Your task to perform on an android device: turn off smart reply in the gmail app Image 0: 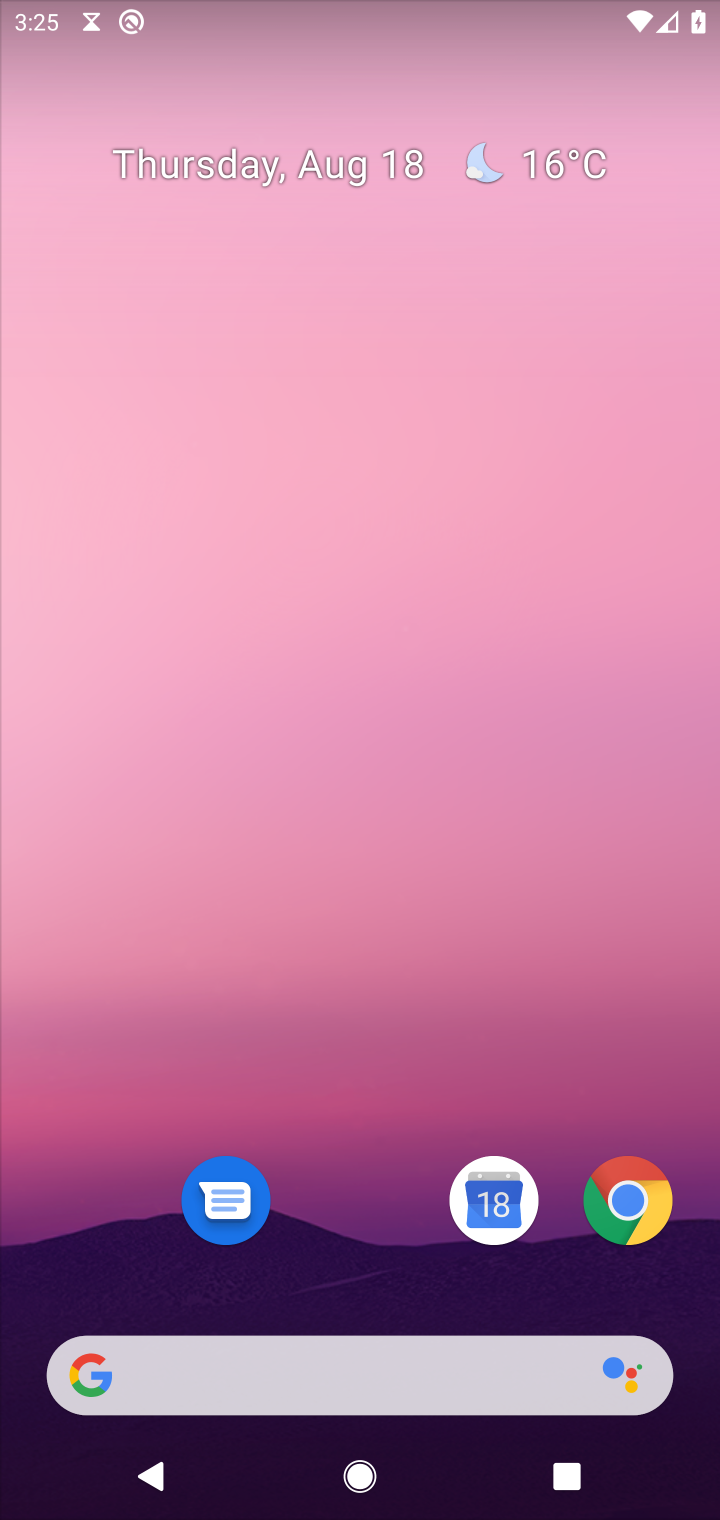
Step 0: drag from (364, 722) to (358, 194)
Your task to perform on an android device: turn off smart reply in the gmail app Image 1: 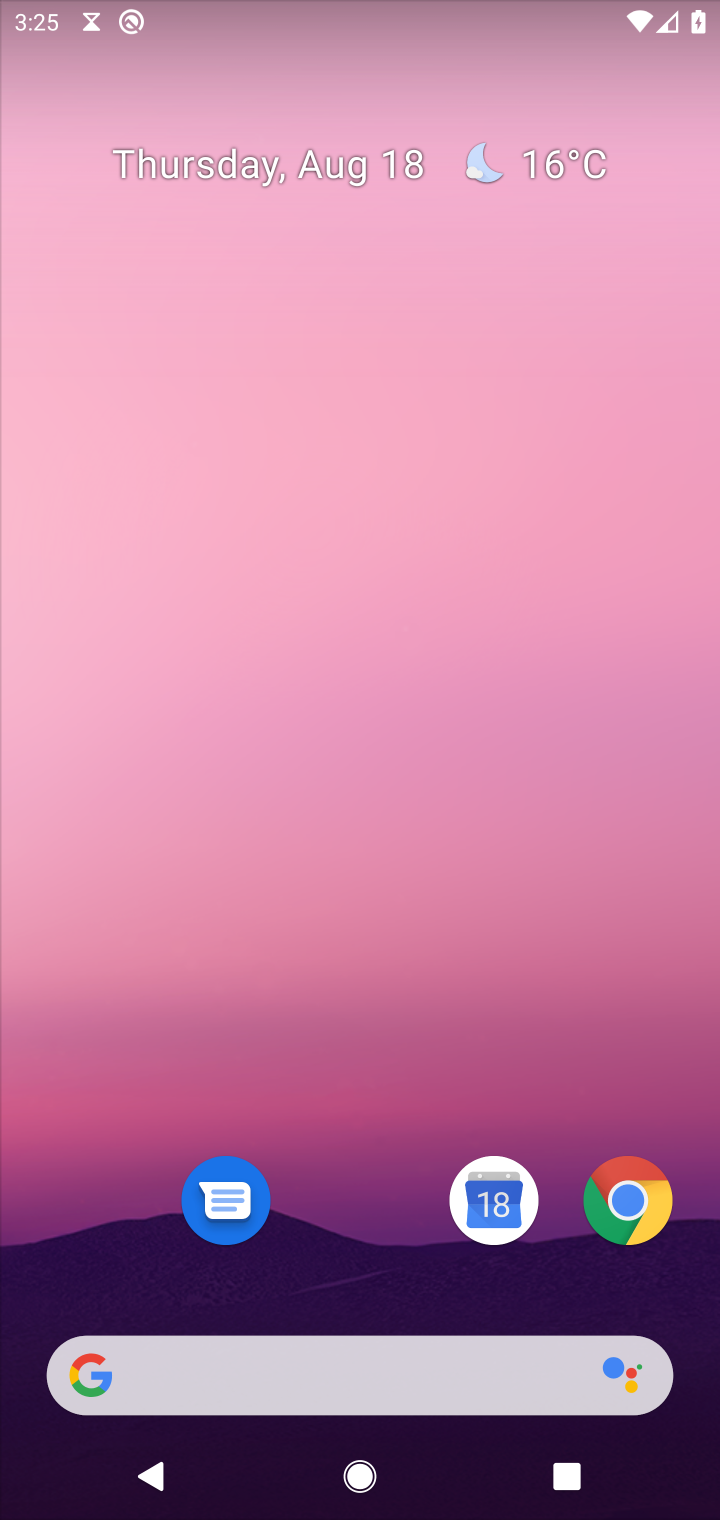
Step 1: drag from (344, 1132) to (425, 209)
Your task to perform on an android device: turn off smart reply in the gmail app Image 2: 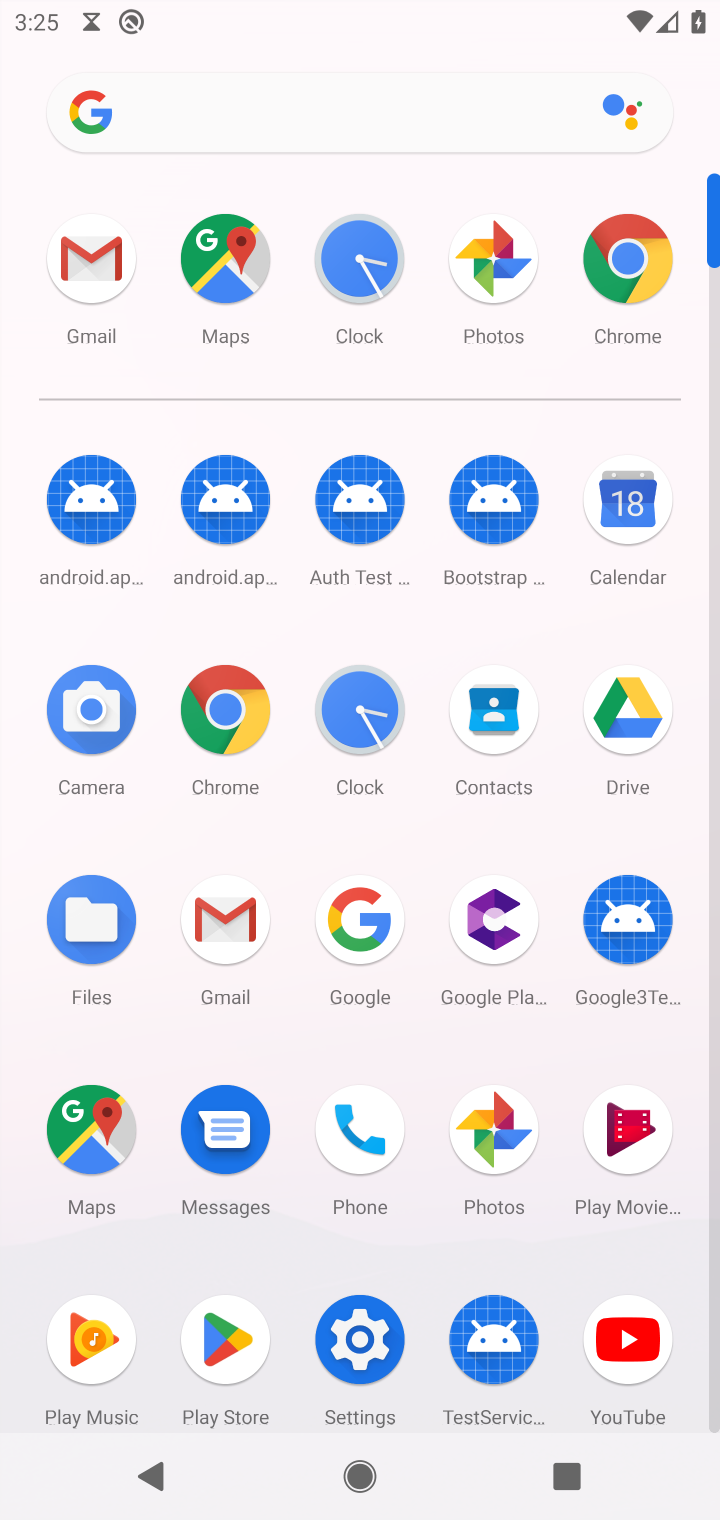
Step 2: click (351, 1339)
Your task to perform on an android device: turn off smart reply in the gmail app Image 3: 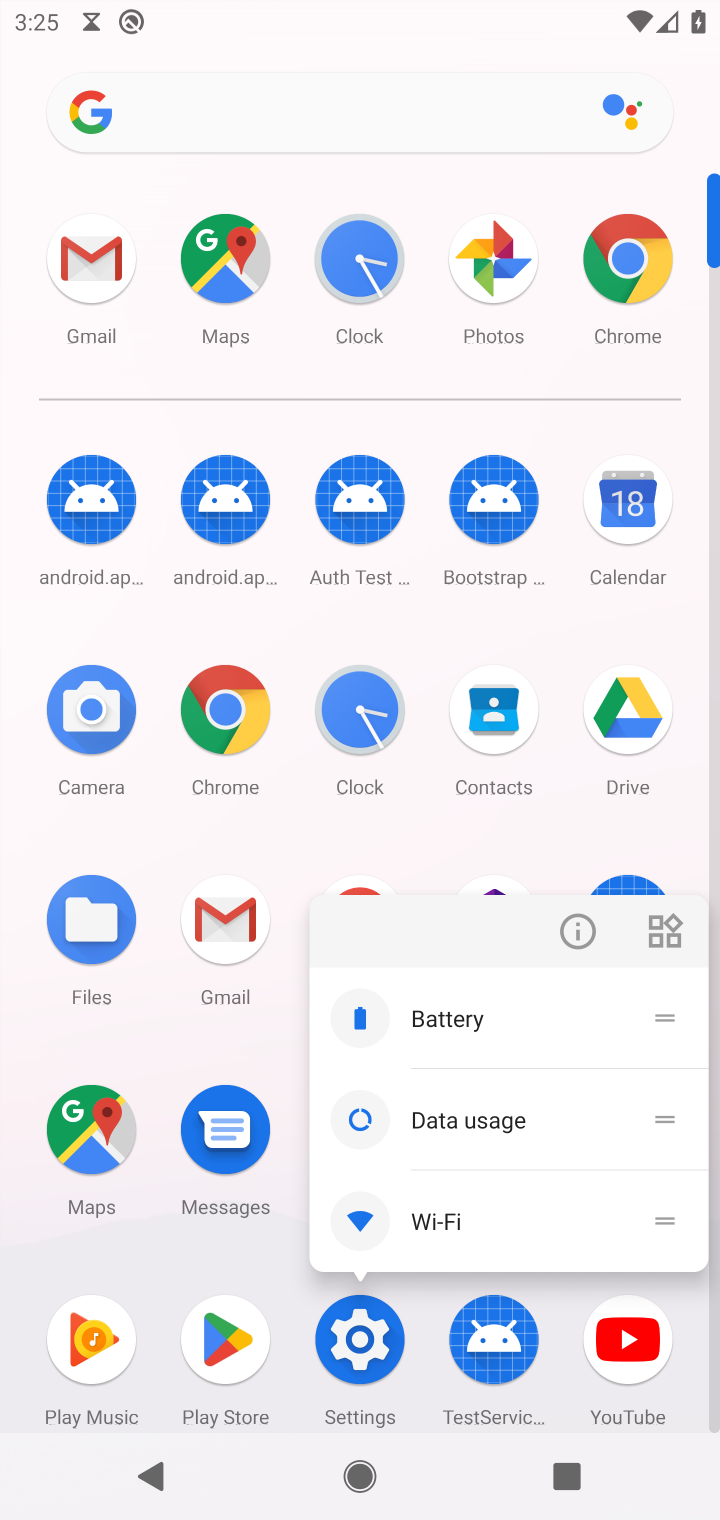
Step 3: click (213, 924)
Your task to perform on an android device: turn off smart reply in the gmail app Image 4: 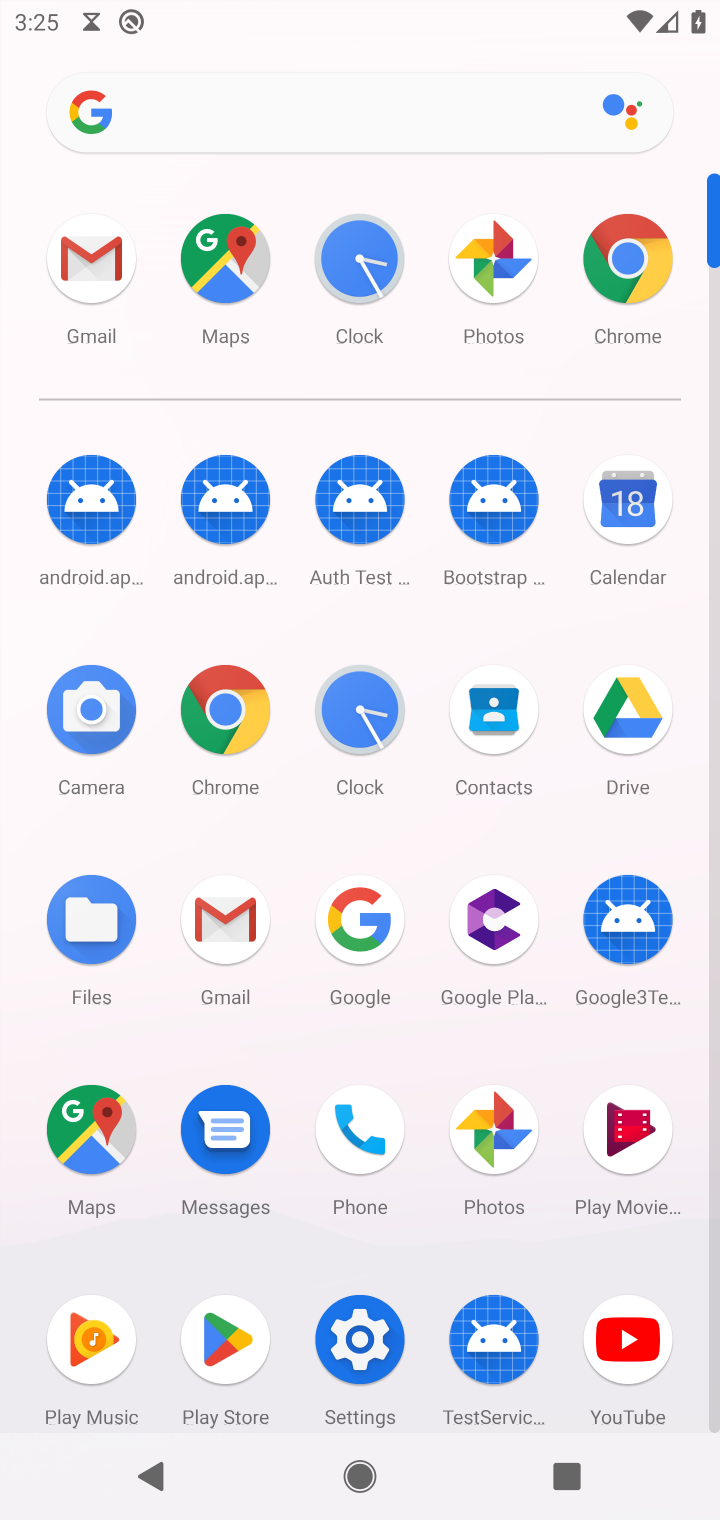
Step 4: click (213, 924)
Your task to perform on an android device: turn off smart reply in the gmail app Image 5: 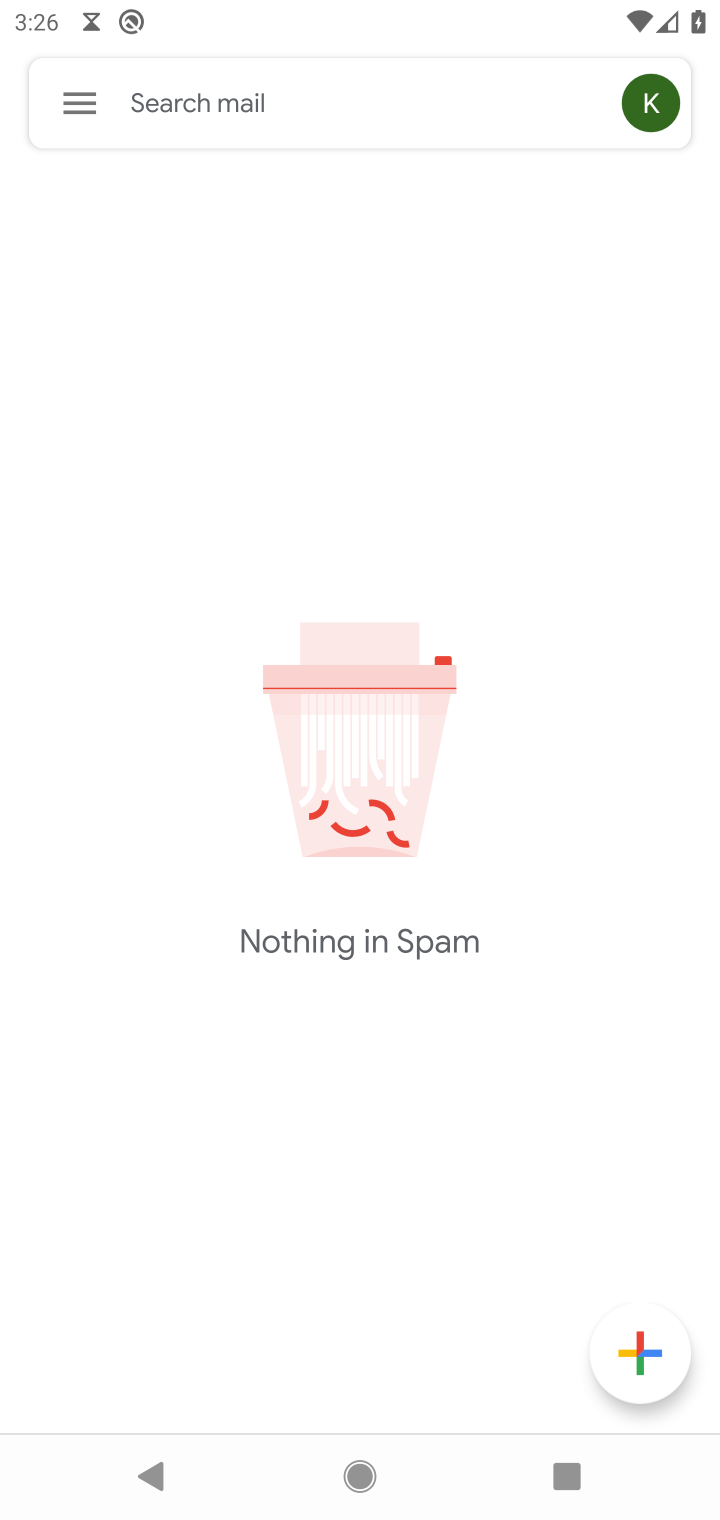
Step 5: click (101, 104)
Your task to perform on an android device: turn off smart reply in the gmail app Image 6: 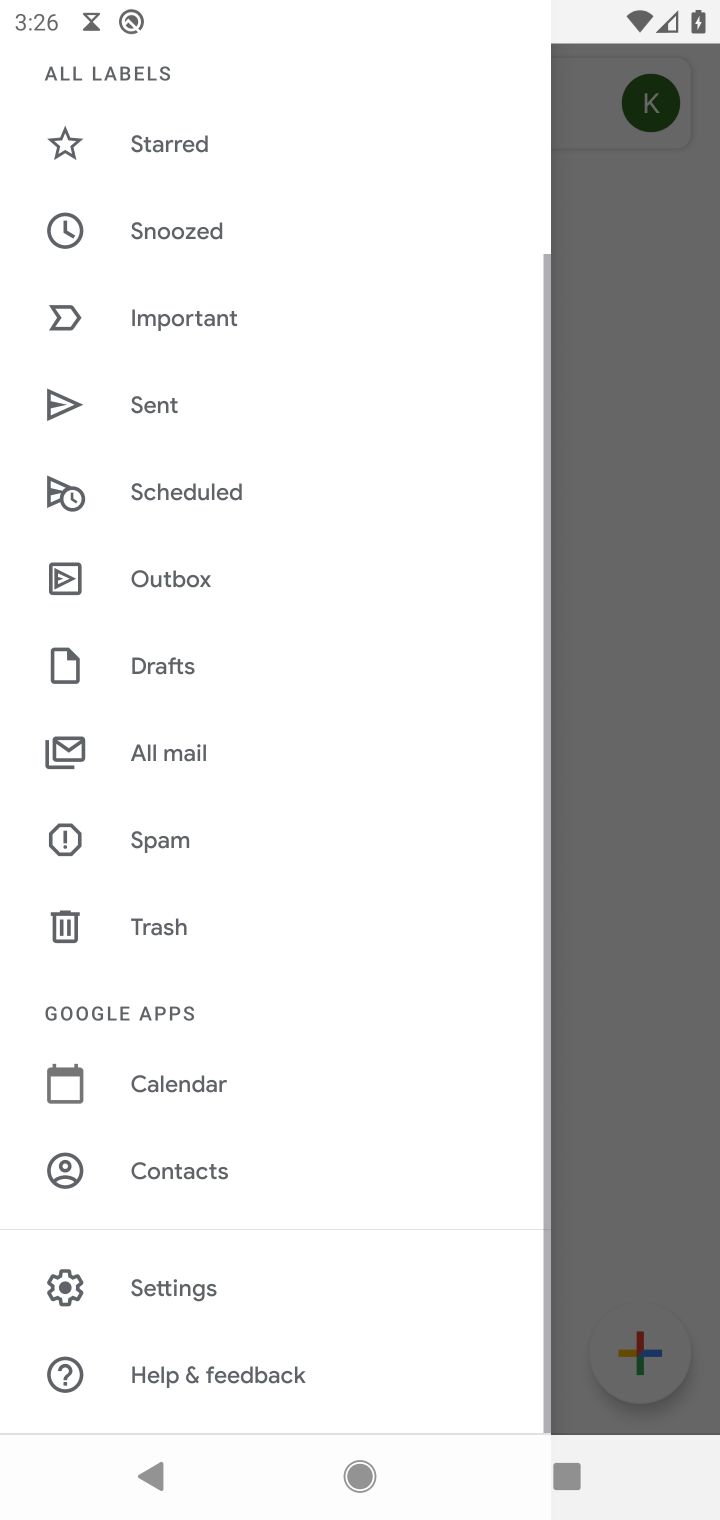
Step 6: drag from (267, 1154) to (375, 179)
Your task to perform on an android device: turn off smart reply in the gmail app Image 7: 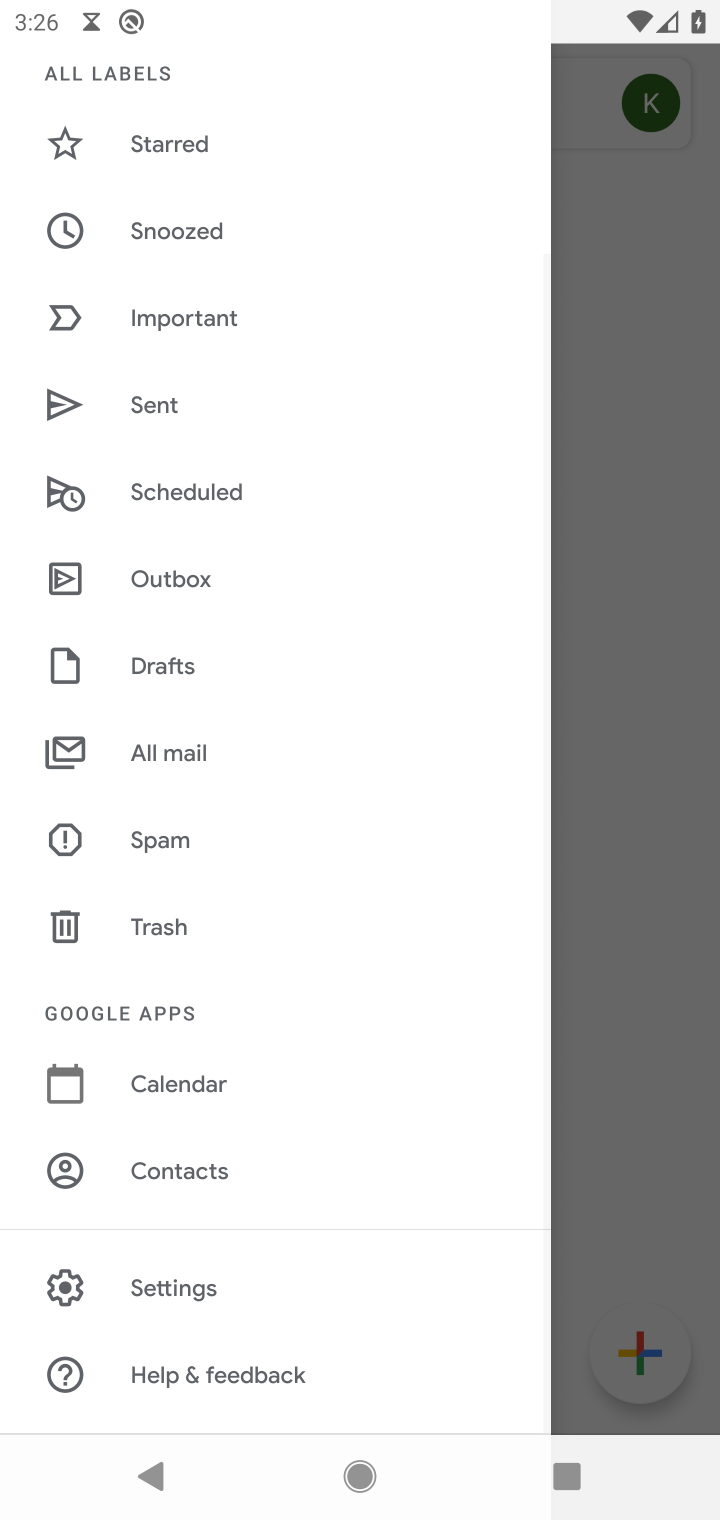
Step 7: click (221, 1279)
Your task to perform on an android device: turn off smart reply in the gmail app Image 8: 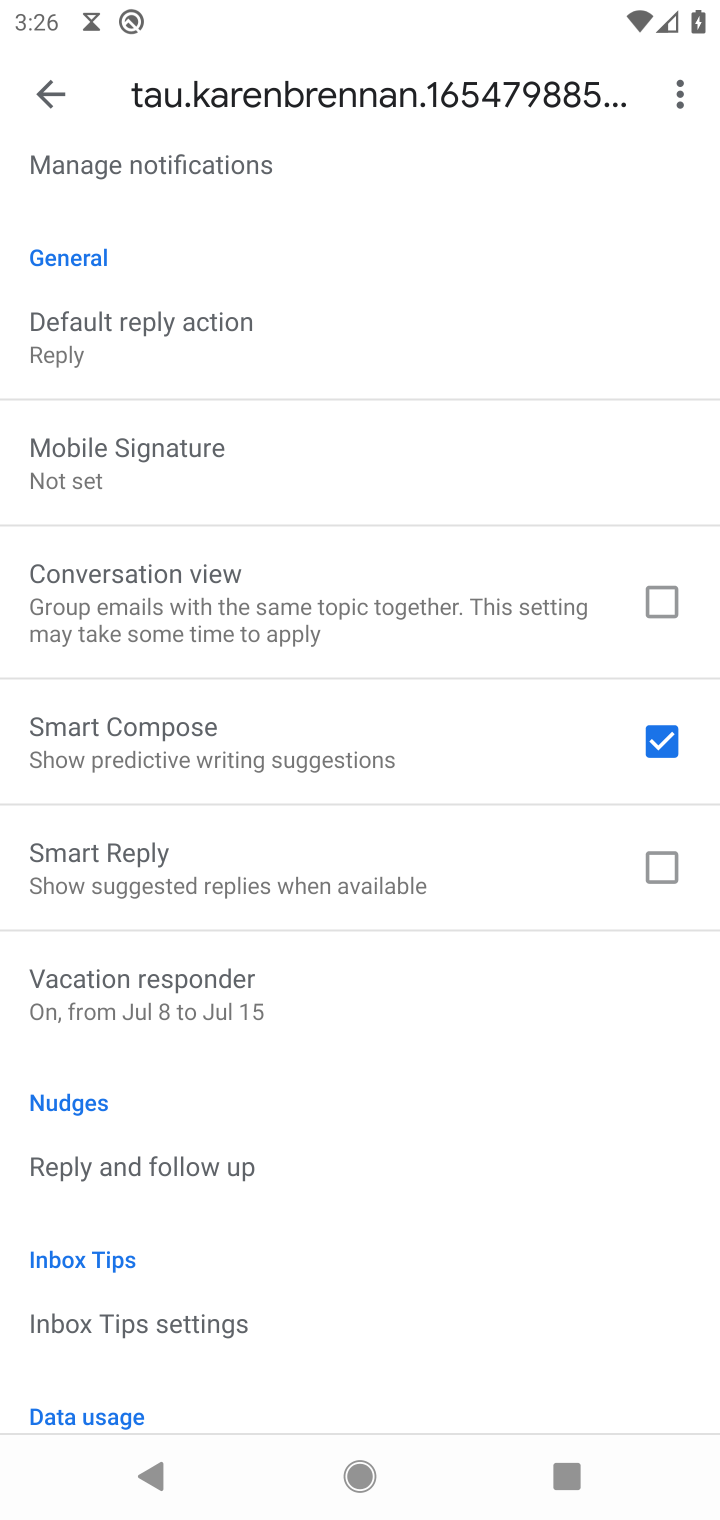
Step 8: task complete